Your task to perform on an android device: Search for sushi restaurants on Maps Image 0: 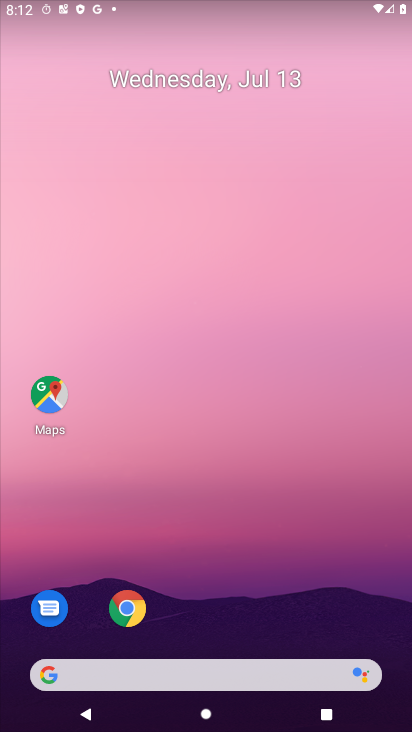
Step 0: drag from (234, 348) to (146, 128)
Your task to perform on an android device: Search for sushi restaurants on Maps Image 1: 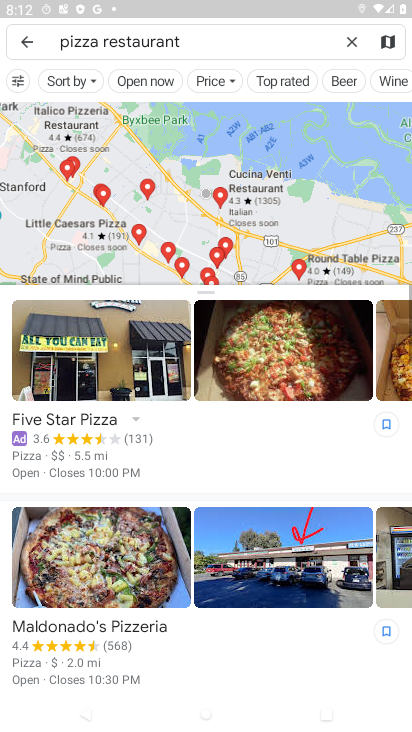
Step 1: drag from (213, 582) to (200, 270)
Your task to perform on an android device: Search for sushi restaurants on Maps Image 2: 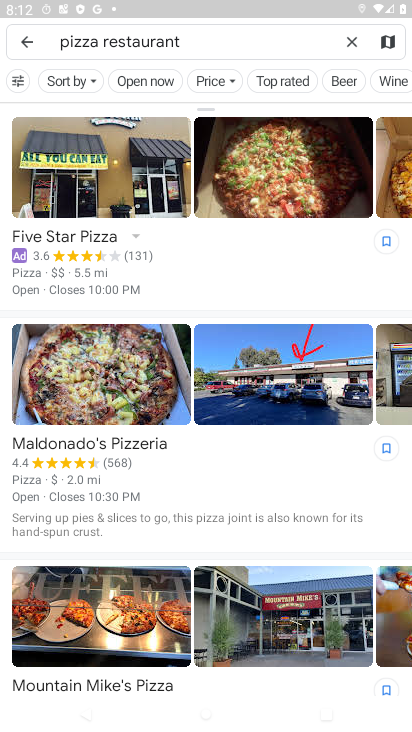
Step 2: click (353, 40)
Your task to perform on an android device: Search for sushi restaurants on Maps Image 3: 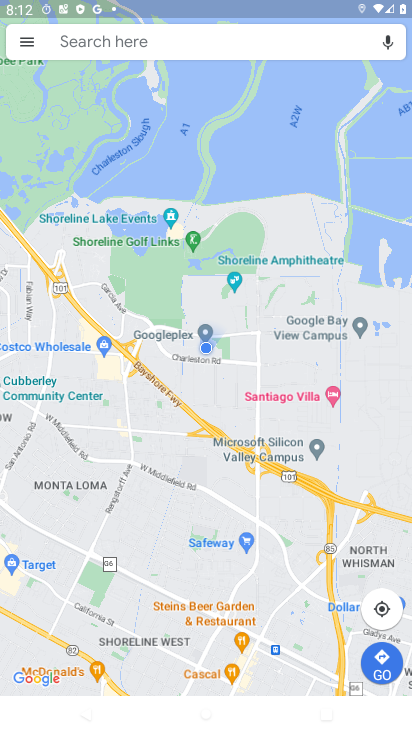
Step 3: type "sushi restaurants"
Your task to perform on an android device: Search for sushi restaurants on Maps Image 4: 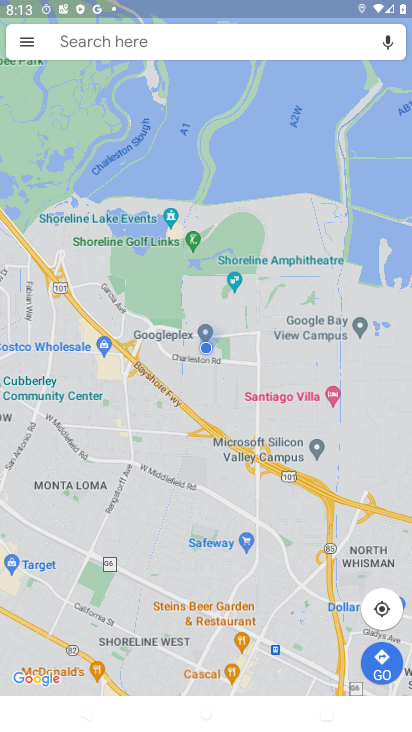
Step 4: task complete